Your task to perform on an android device: find which apps use the phone's location Image 0: 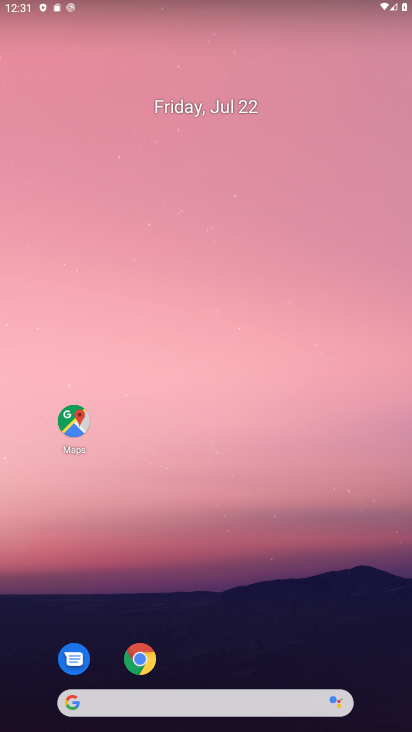
Step 0: drag from (217, 652) to (196, 35)
Your task to perform on an android device: find which apps use the phone's location Image 1: 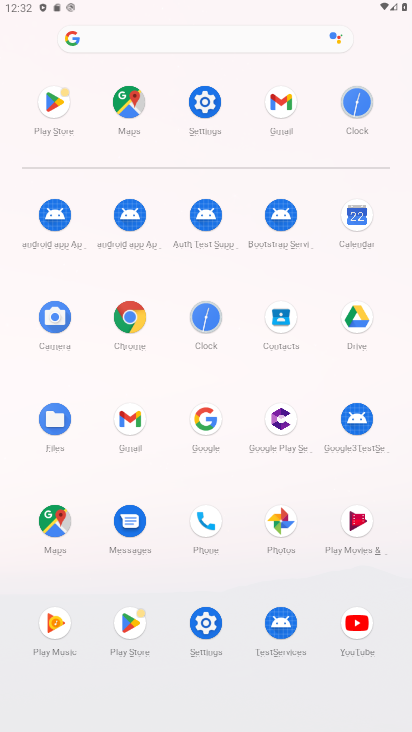
Step 1: click (201, 97)
Your task to perform on an android device: find which apps use the phone's location Image 2: 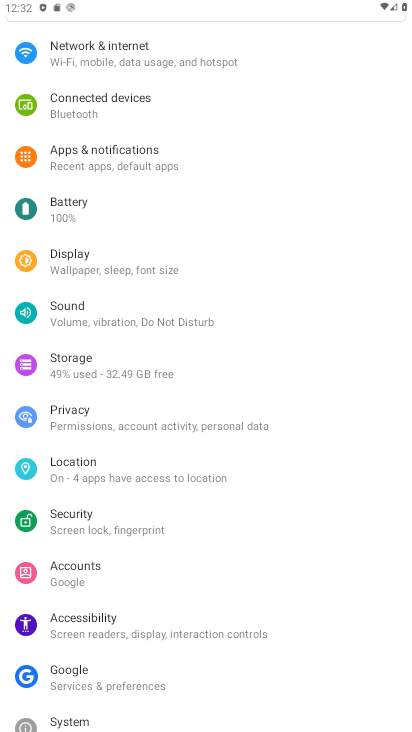
Step 2: task complete